Your task to perform on an android device: see sites visited before in the chrome app Image 0: 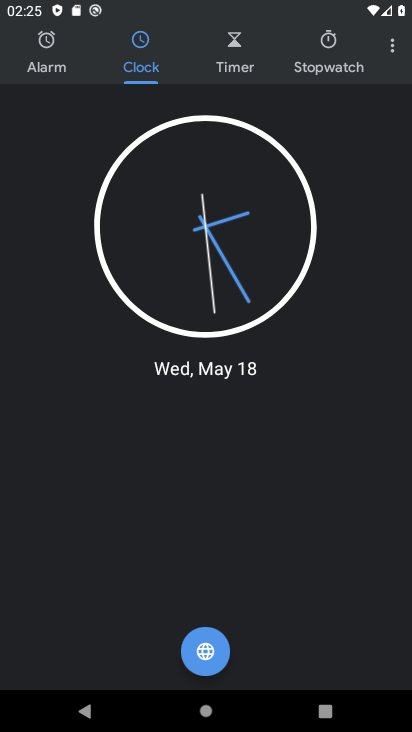
Step 0: press home button
Your task to perform on an android device: see sites visited before in the chrome app Image 1: 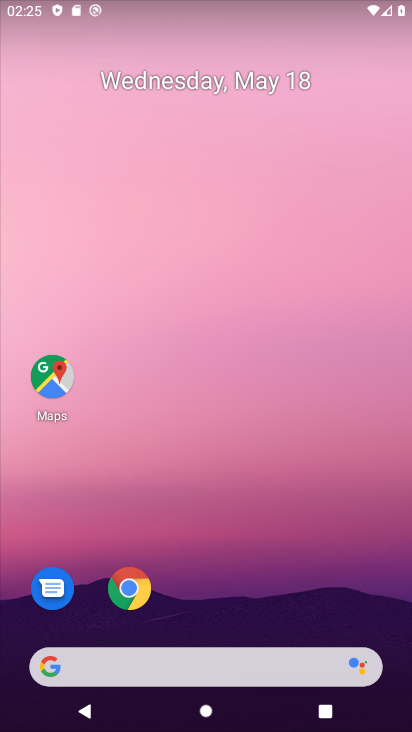
Step 1: click (121, 589)
Your task to perform on an android device: see sites visited before in the chrome app Image 2: 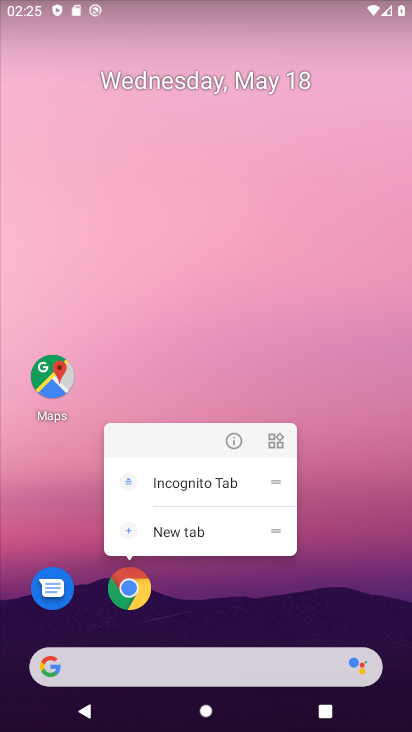
Step 2: click (119, 586)
Your task to perform on an android device: see sites visited before in the chrome app Image 3: 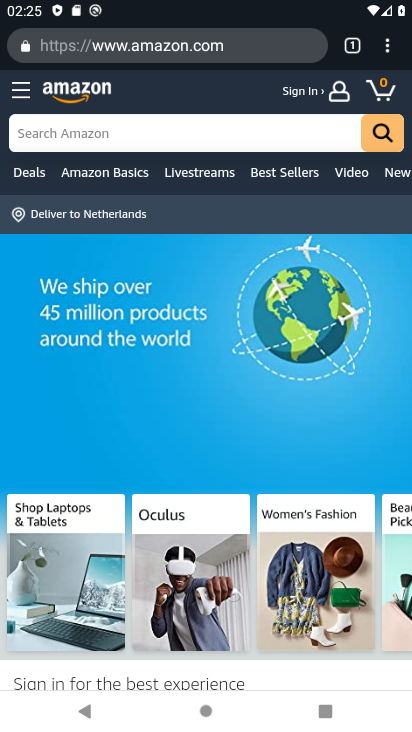
Step 3: click (384, 46)
Your task to perform on an android device: see sites visited before in the chrome app Image 4: 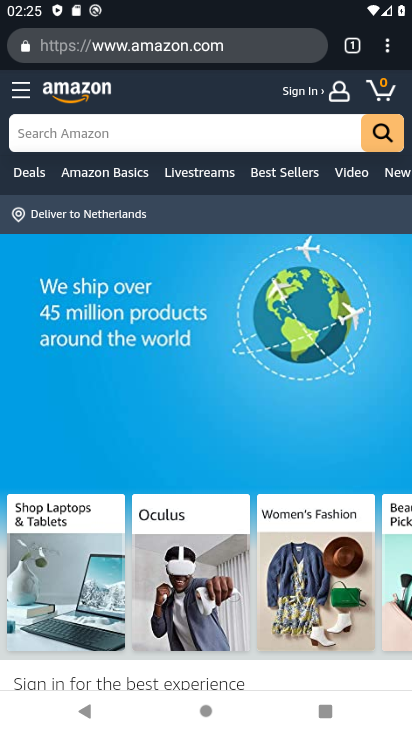
Step 4: click (388, 44)
Your task to perform on an android device: see sites visited before in the chrome app Image 5: 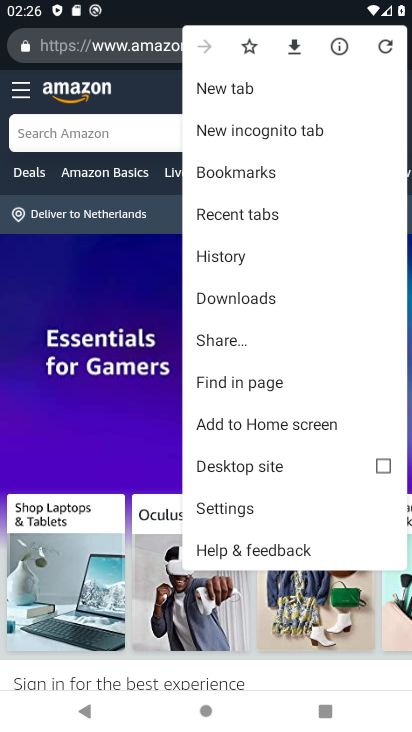
Step 5: click (279, 253)
Your task to perform on an android device: see sites visited before in the chrome app Image 6: 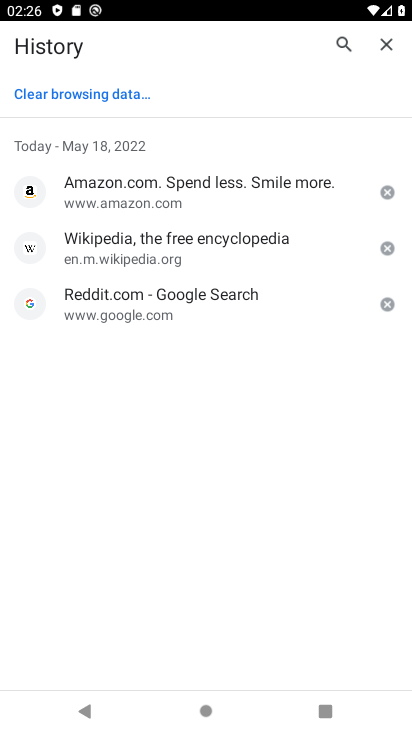
Step 6: task complete